Your task to perform on an android device: Open Google Maps and go to "Timeline" Image 0: 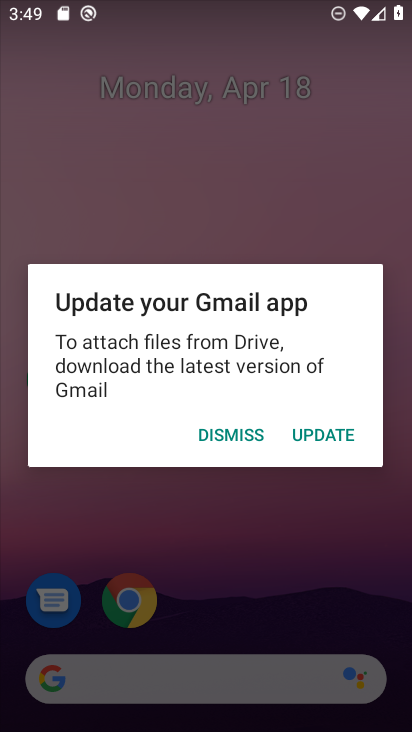
Step 0: click (233, 439)
Your task to perform on an android device: Open Google Maps and go to "Timeline" Image 1: 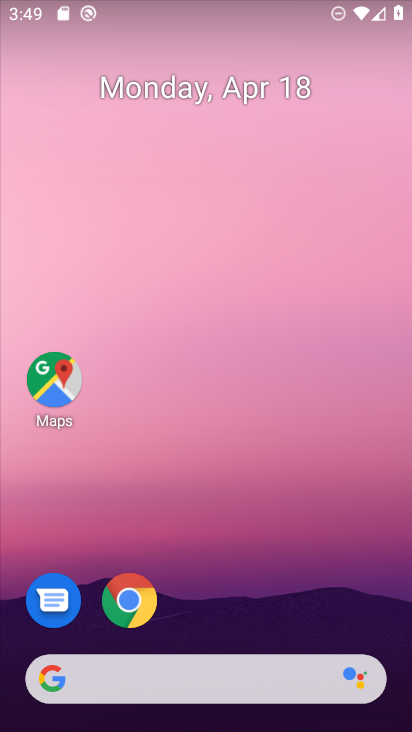
Step 1: drag from (250, 634) to (67, 386)
Your task to perform on an android device: Open Google Maps and go to "Timeline" Image 2: 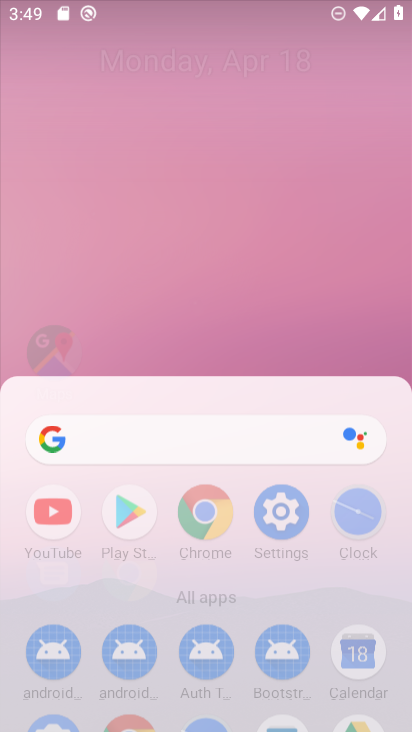
Step 2: click (67, 386)
Your task to perform on an android device: Open Google Maps and go to "Timeline" Image 3: 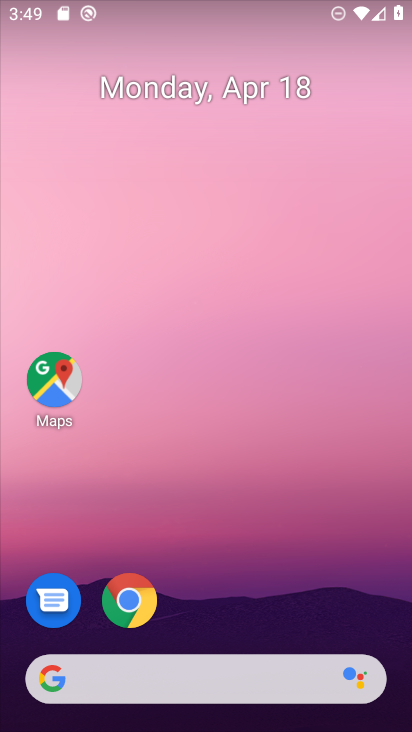
Step 3: click (67, 386)
Your task to perform on an android device: Open Google Maps and go to "Timeline" Image 4: 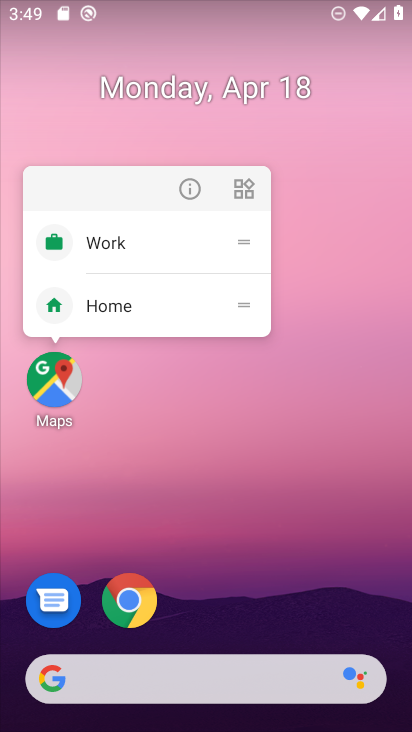
Step 4: drag from (55, 383) to (139, 411)
Your task to perform on an android device: Open Google Maps and go to "Timeline" Image 5: 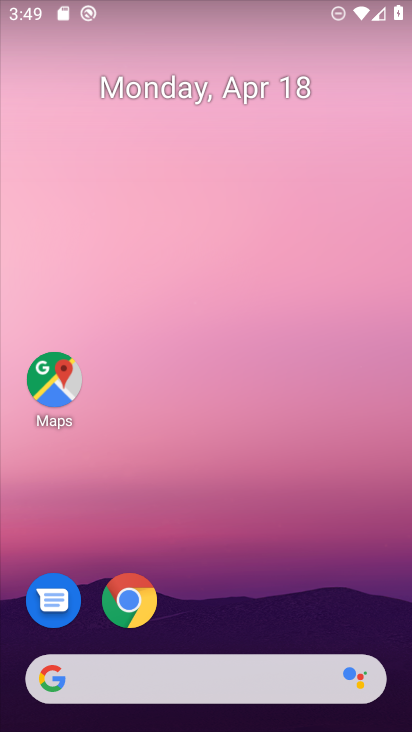
Step 5: drag from (99, 403) to (57, 377)
Your task to perform on an android device: Open Google Maps and go to "Timeline" Image 6: 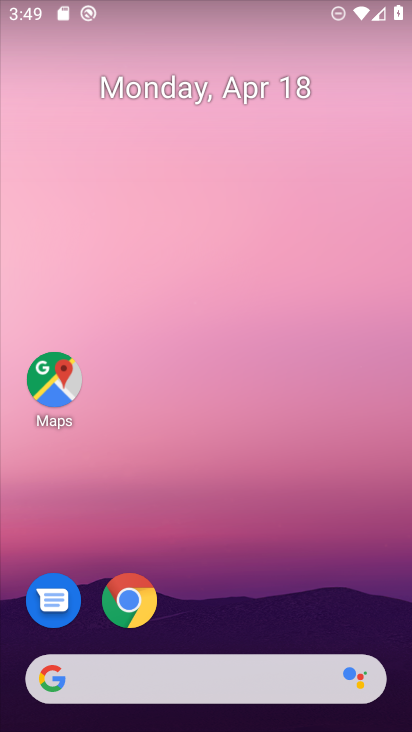
Step 6: click (53, 399)
Your task to perform on an android device: Open Google Maps and go to "Timeline" Image 7: 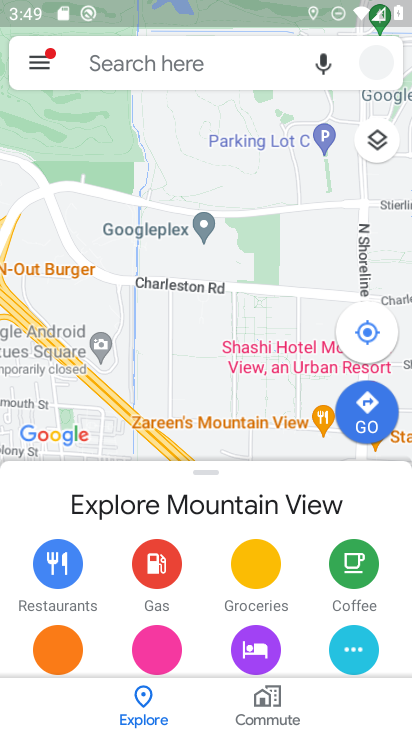
Step 7: click (38, 60)
Your task to perform on an android device: Open Google Maps and go to "Timeline" Image 8: 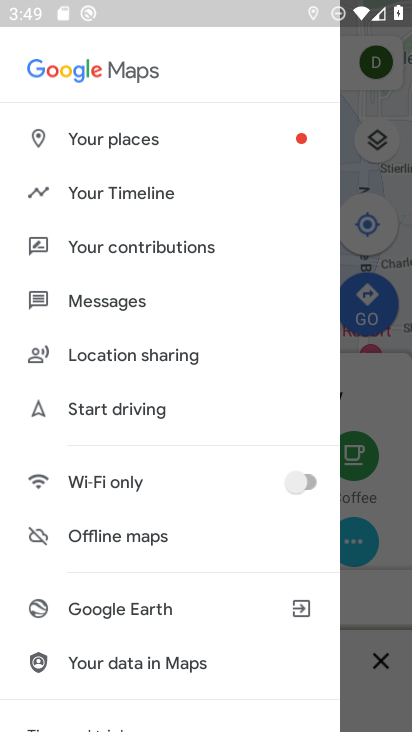
Step 8: click (131, 188)
Your task to perform on an android device: Open Google Maps and go to "Timeline" Image 9: 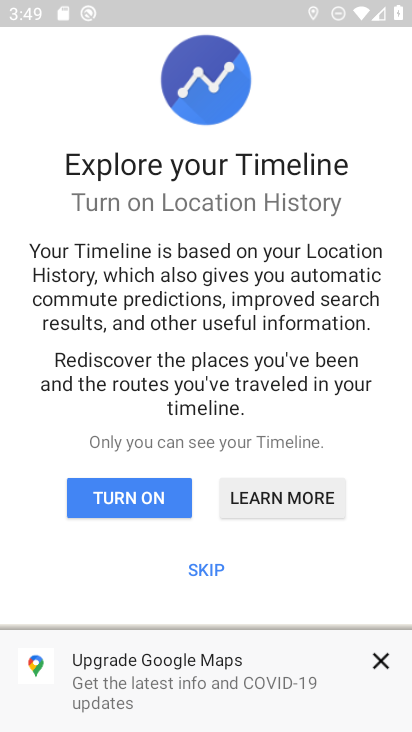
Step 9: click (215, 570)
Your task to perform on an android device: Open Google Maps and go to "Timeline" Image 10: 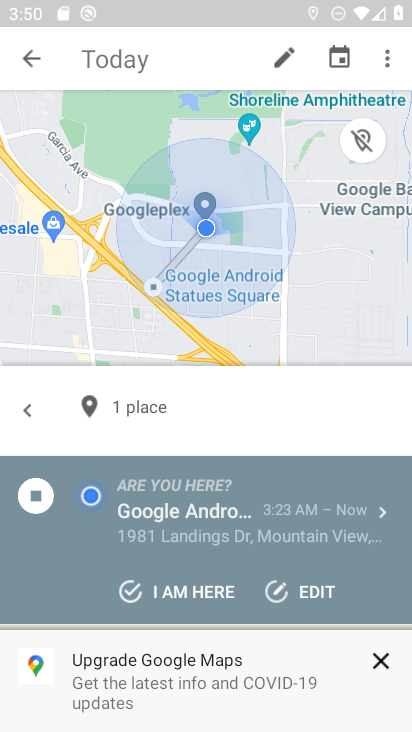
Step 10: task complete